Your task to perform on an android device: check out phone information Image 0: 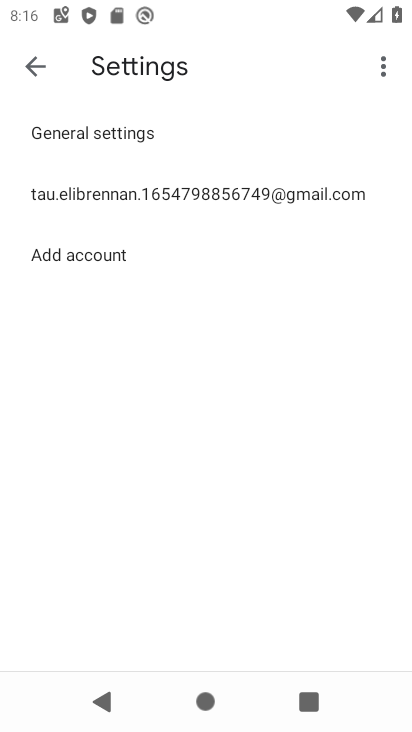
Step 0: press home button
Your task to perform on an android device: check out phone information Image 1: 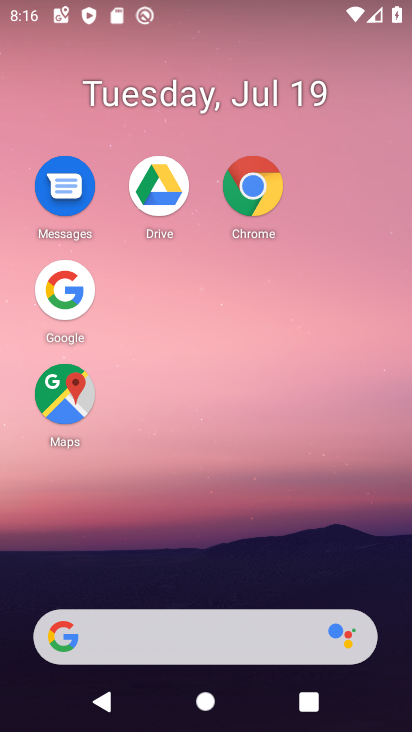
Step 1: drag from (197, 595) to (270, 7)
Your task to perform on an android device: check out phone information Image 2: 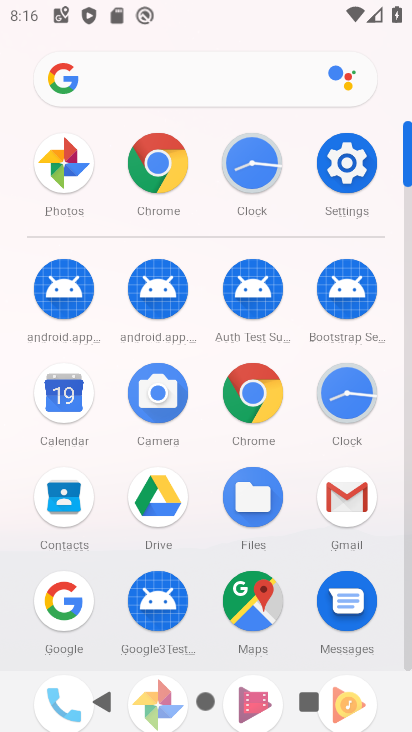
Step 2: click (77, 155)
Your task to perform on an android device: check out phone information Image 3: 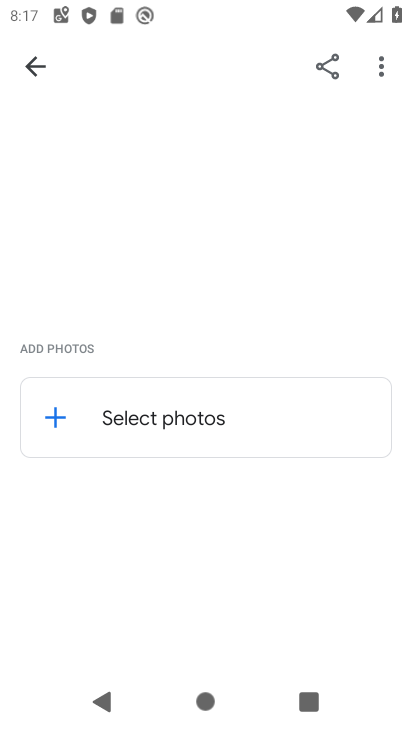
Step 3: press back button
Your task to perform on an android device: check out phone information Image 4: 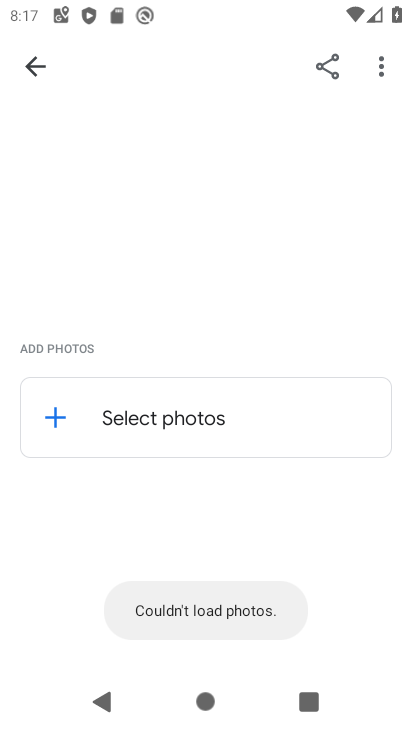
Step 4: press home button
Your task to perform on an android device: check out phone information Image 5: 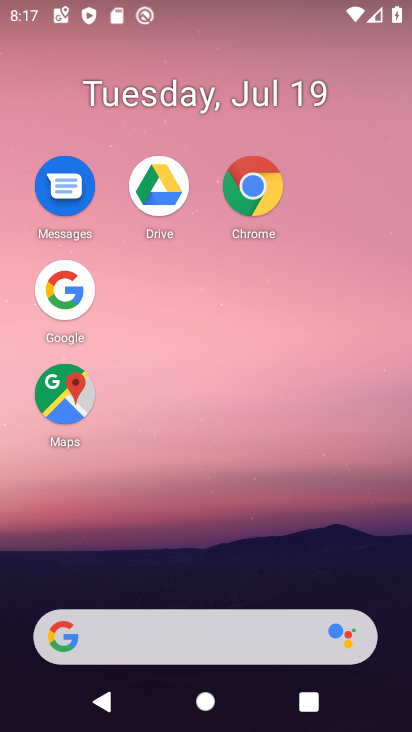
Step 5: drag from (200, 570) to (208, 73)
Your task to perform on an android device: check out phone information Image 6: 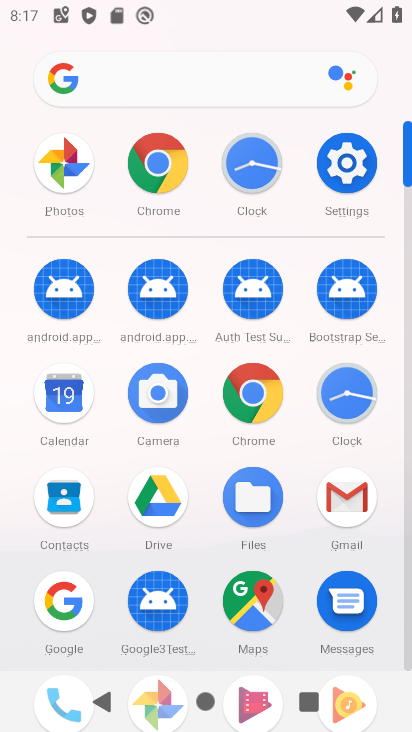
Step 6: click (346, 154)
Your task to perform on an android device: check out phone information Image 7: 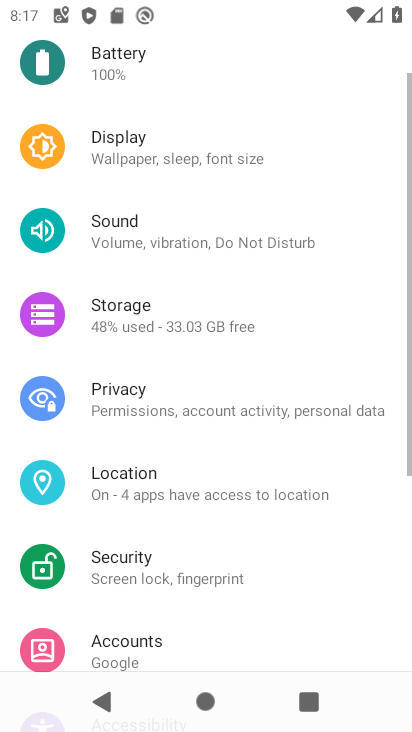
Step 7: drag from (163, 494) to (47, 49)
Your task to perform on an android device: check out phone information Image 8: 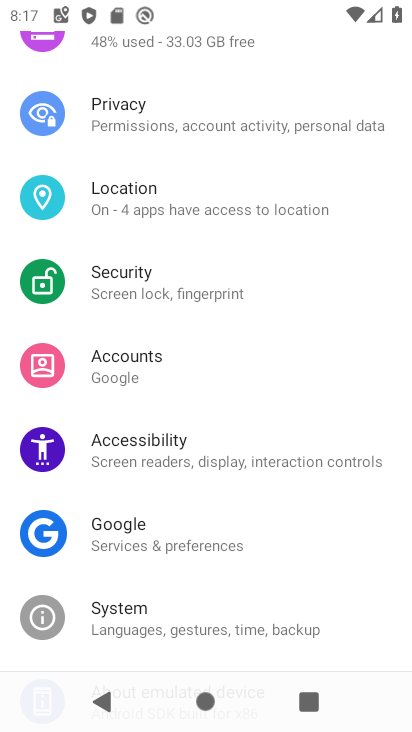
Step 8: drag from (104, 495) to (67, 83)
Your task to perform on an android device: check out phone information Image 9: 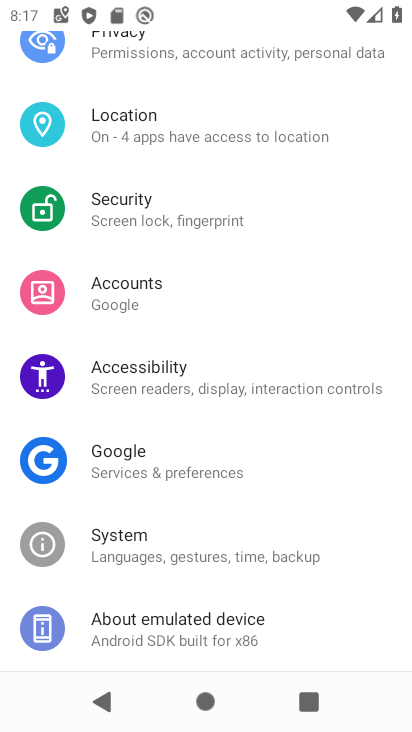
Step 9: click (113, 620)
Your task to perform on an android device: check out phone information Image 10: 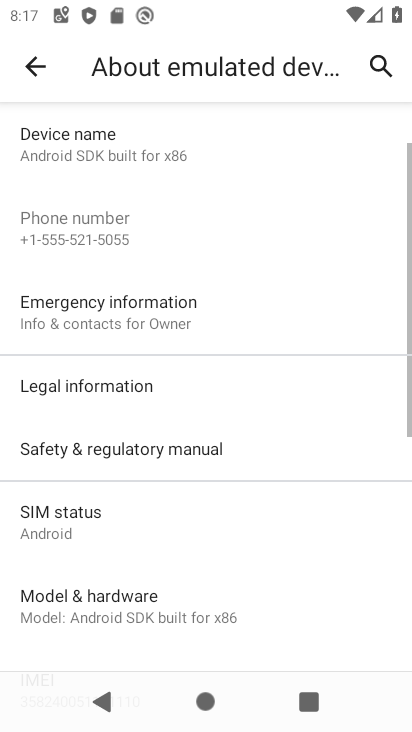
Step 10: task complete